Your task to perform on an android device: Clear the shopping cart on newegg.com. Search for "bose quietcomfort 35" on newegg.com, select the first entry, add it to the cart, then select checkout. Image 0: 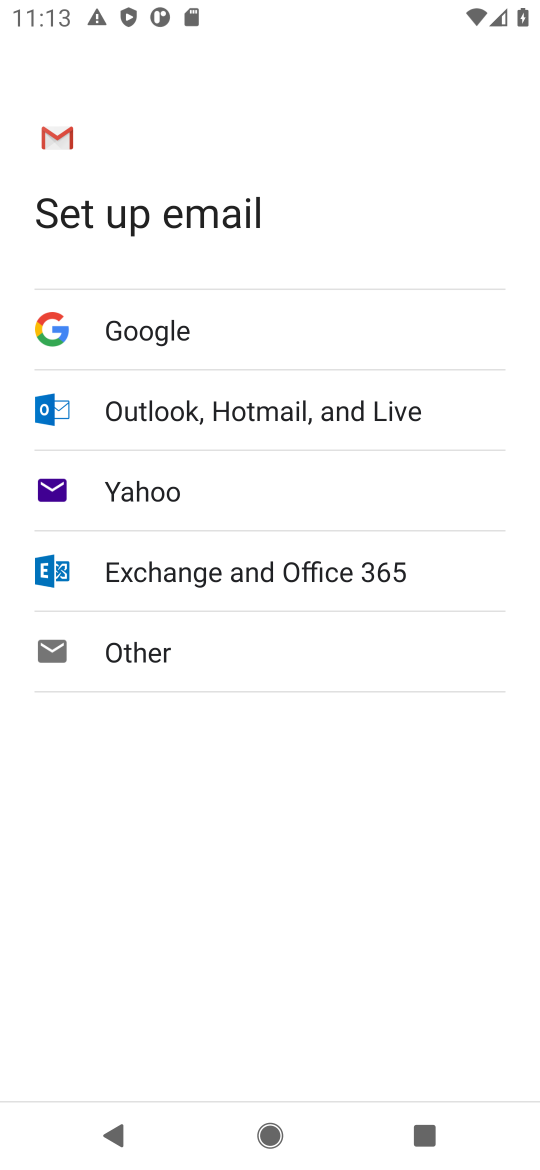
Step 0: press home button
Your task to perform on an android device: Clear the shopping cart on newegg.com. Search for "bose quietcomfort 35" on newegg.com, select the first entry, add it to the cart, then select checkout. Image 1: 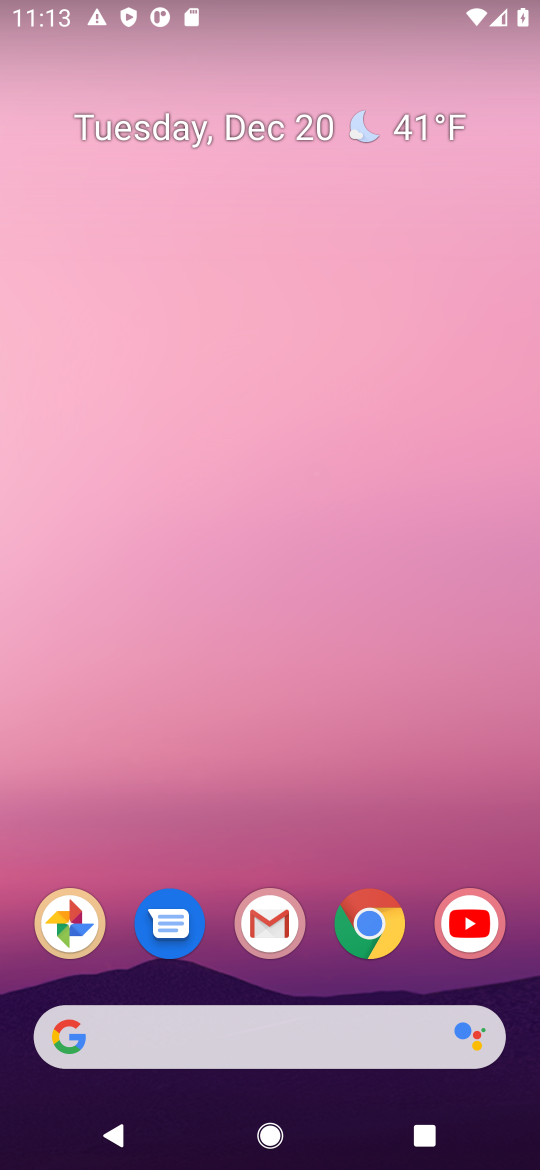
Step 1: click (354, 890)
Your task to perform on an android device: Clear the shopping cart on newegg.com. Search for "bose quietcomfort 35" on newegg.com, select the first entry, add it to the cart, then select checkout. Image 2: 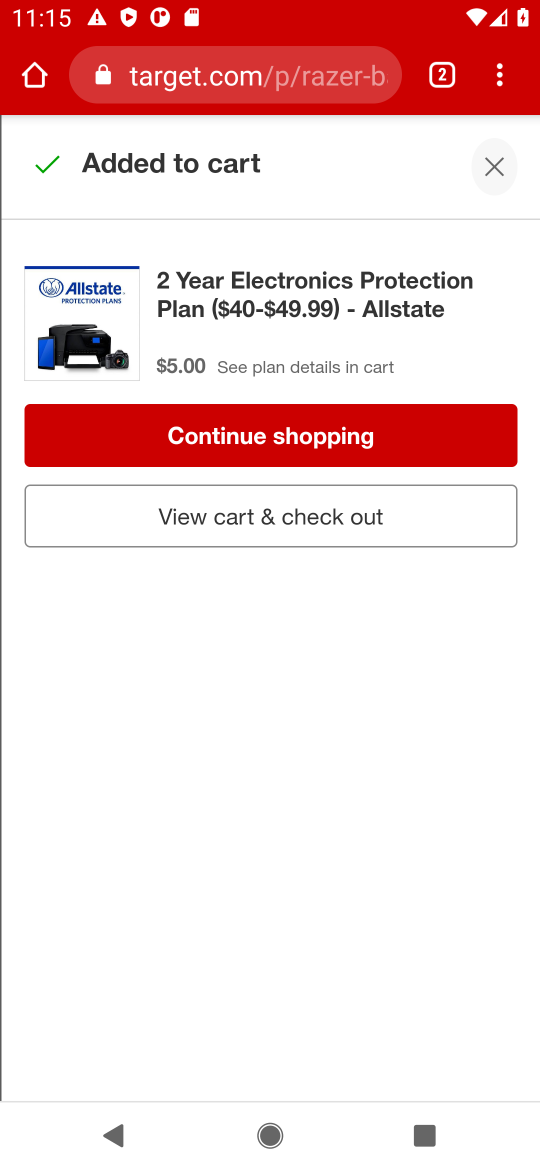
Step 2: click (493, 176)
Your task to perform on an android device: Clear the shopping cart on newegg.com. Search for "bose quietcomfort 35" on newegg.com, select the first entry, add it to the cart, then select checkout. Image 3: 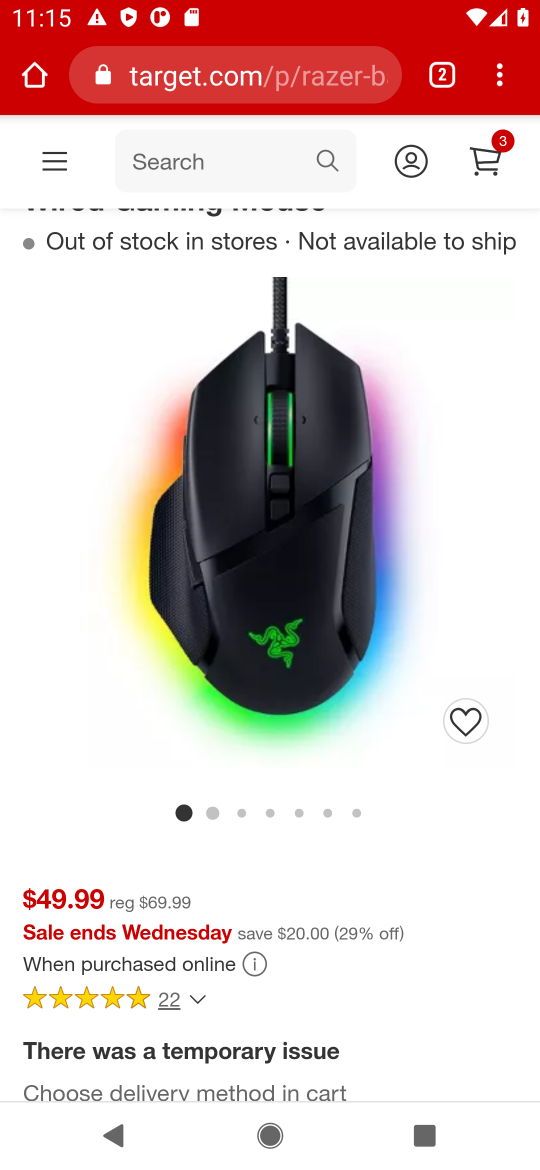
Step 3: click (166, 90)
Your task to perform on an android device: Clear the shopping cart on newegg.com. Search for "bose quietcomfort 35" on newegg.com, select the first entry, add it to the cart, then select checkout. Image 4: 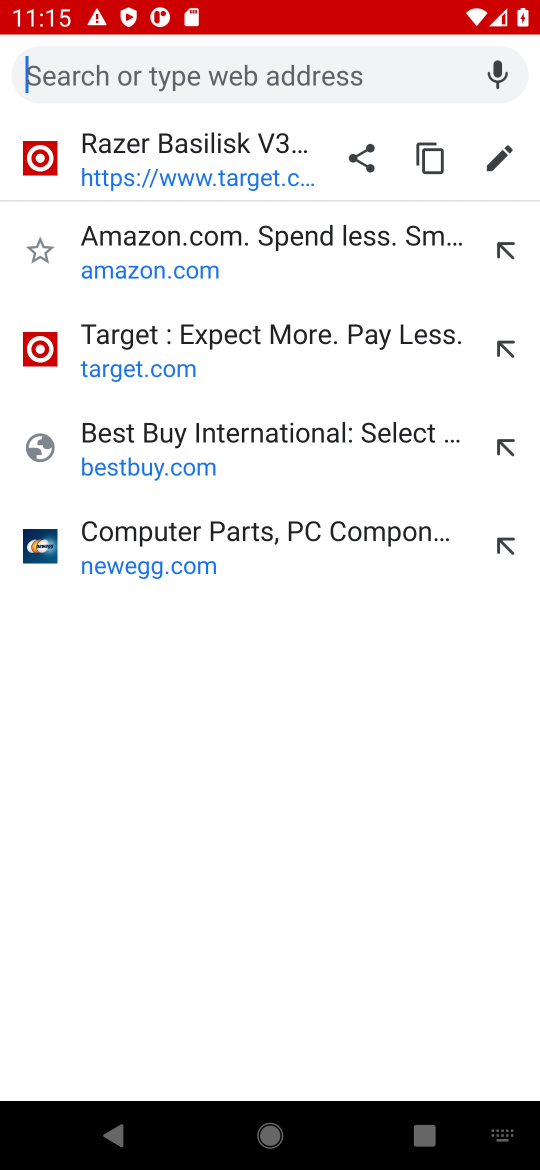
Step 4: type "newegg"
Your task to perform on an android device: Clear the shopping cart on newegg.com. Search for "bose quietcomfort 35" on newegg.com, select the first entry, add it to the cart, then select checkout. Image 5: 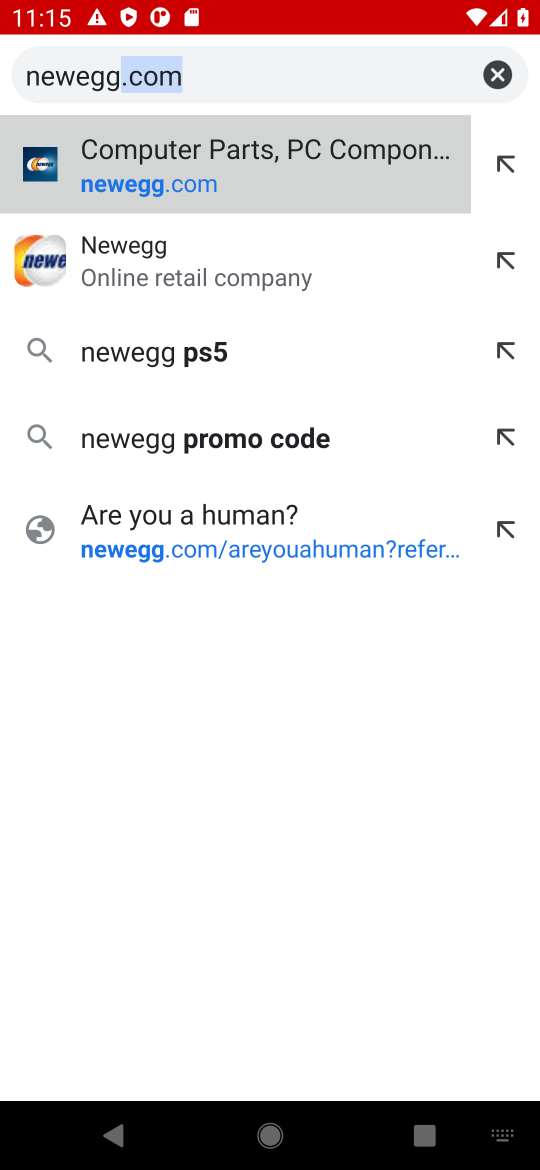
Step 5: click (263, 177)
Your task to perform on an android device: Clear the shopping cart on newegg.com. Search for "bose quietcomfort 35" on newegg.com, select the first entry, add it to the cart, then select checkout. Image 6: 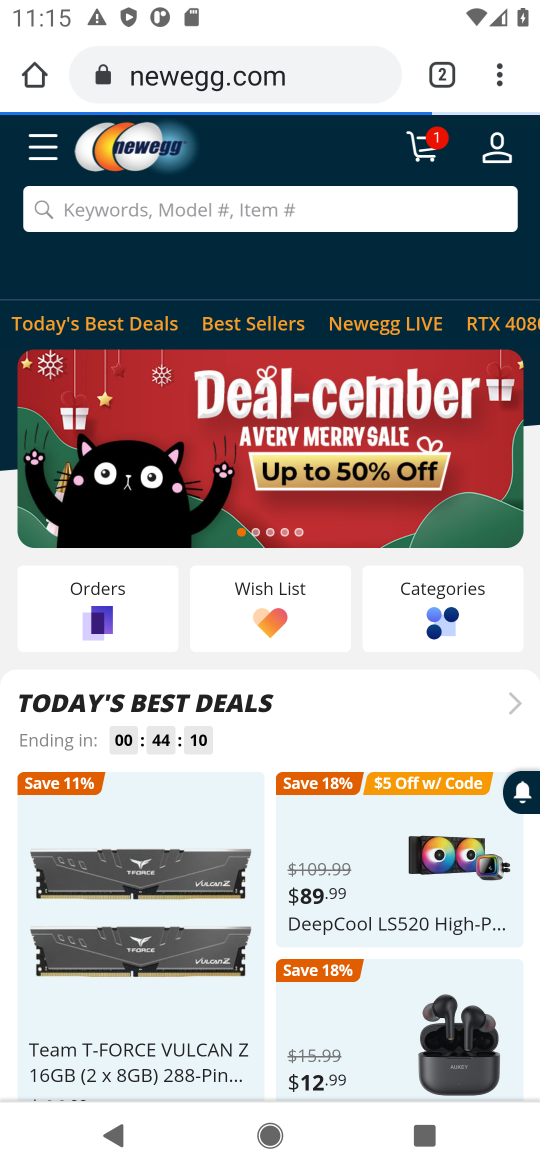
Step 6: click (232, 218)
Your task to perform on an android device: Clear the shopping cart on newegg.com. Search for "bose quietcomfort 35" on newegg.com, select the first entry, add it to the cart, then select checkout. Image 7: 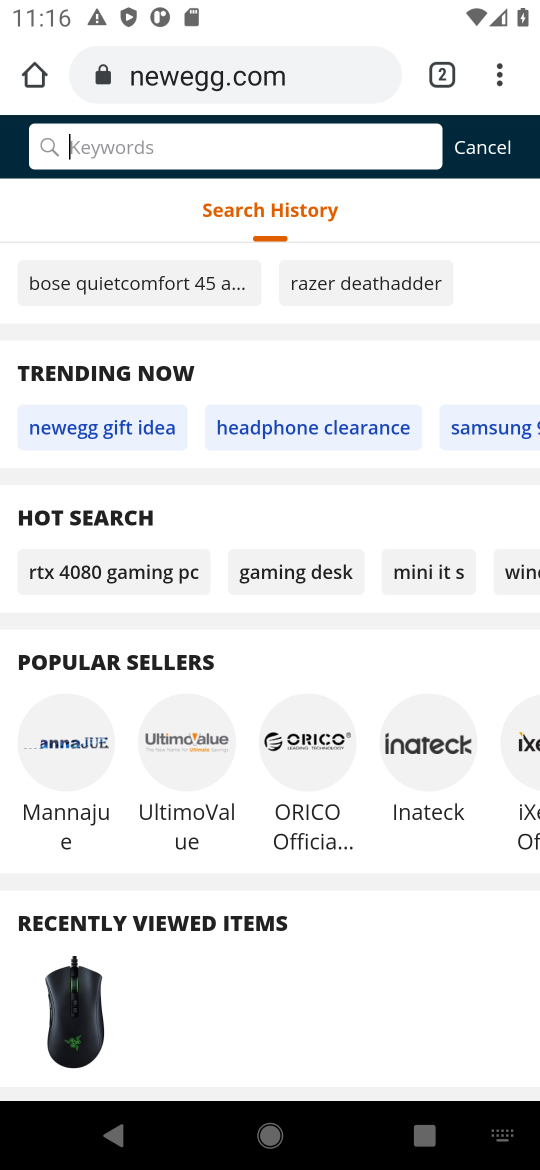
Step 7: type "boss quietcomfort"
Your task to perform on an android device: Clear the shopping cart on newegg.com. Search for "bose quietcomfort 35" on newegg.com, select the first entry, add it to the cart, then select checkout. Image 8: 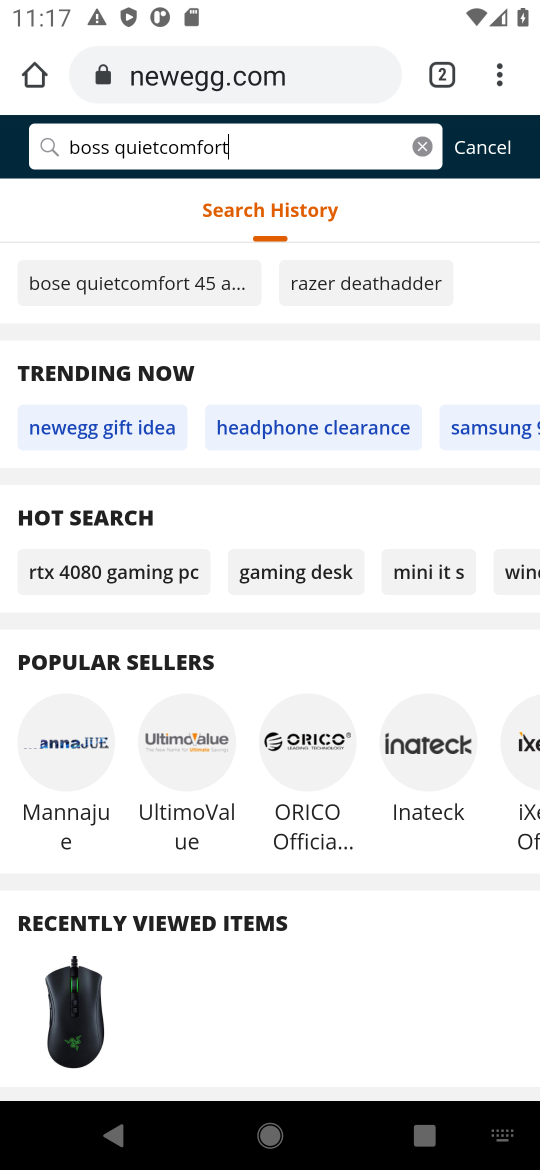
Step 8: click (110, 274)
Your task to perform on an android device: Clear the shopping cart on newegg.com. Search for "bose quietcomfort 35" on newegg.com, select the first entry, add it to the cart, then select checkout. Image 9: 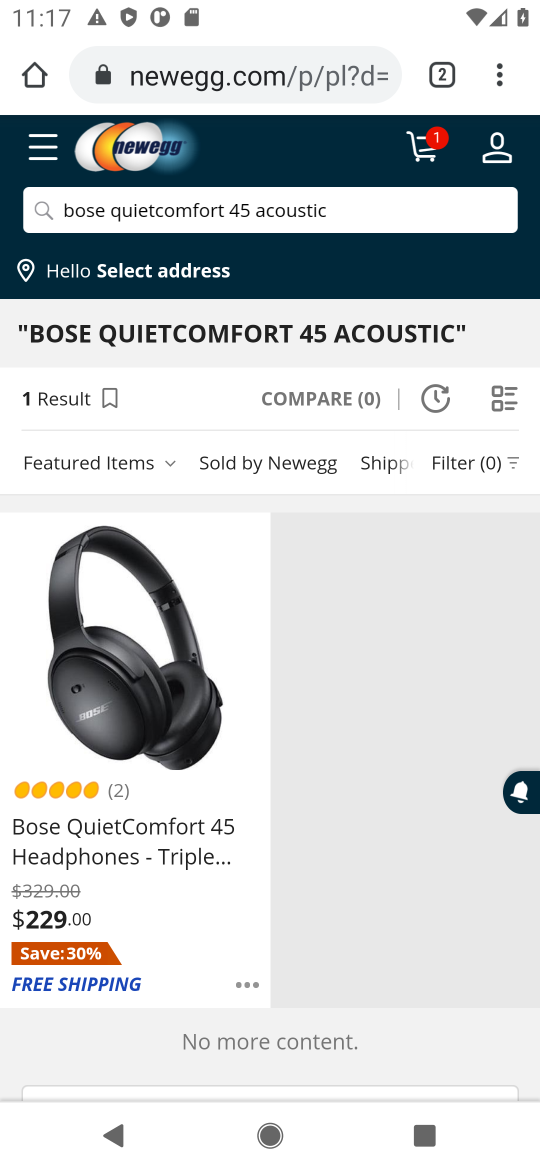
Step 9: click (159, 774)
Your task to perform on an android device: Clear the shopping cart on newegg.com. Search for "bose quietcomfort 35" on newegg.com, select the first entry, add it to the cart, then select checkout. Image 10: 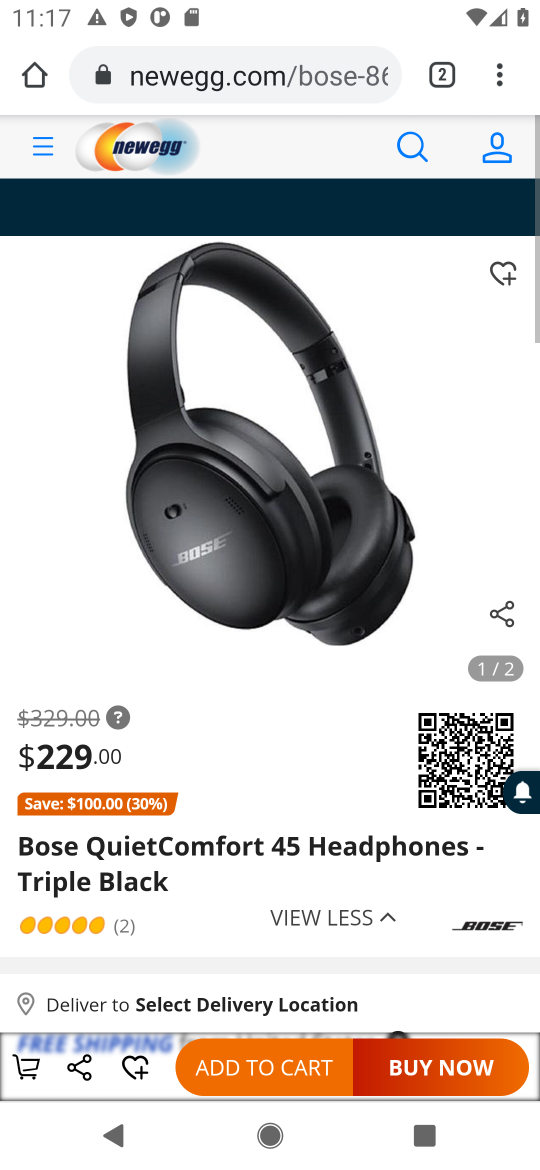
Step 10: click (263, 1073)
Your task to perform on an android device: Clear the shopping cart on newegg.com. Search for "bose quietcomfort 35" on newegg.com, select the first entry, add it to the cart, then select checkout. Image 11: 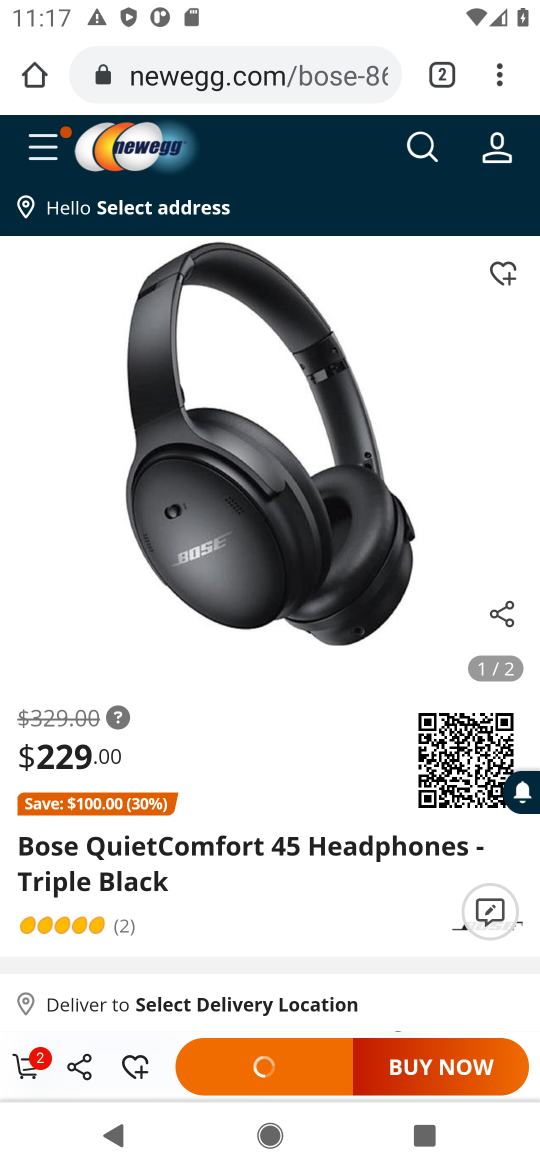
Step 11: task complete